Your task to perform on an android device: Open the web browser Image 0: 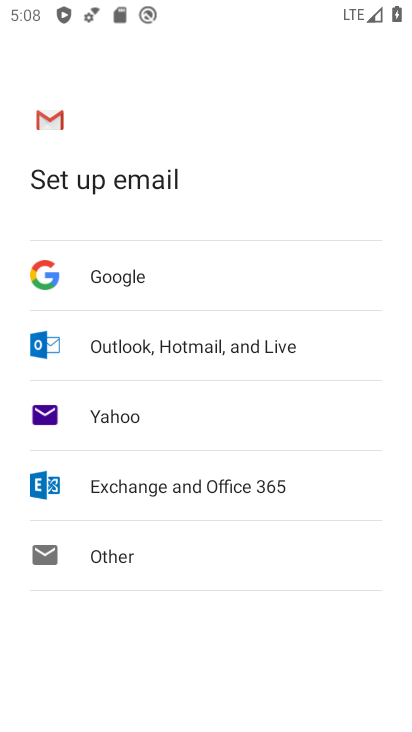
Step 0: press home button
Your task to perform on an android device: Open the web browser Image 1: 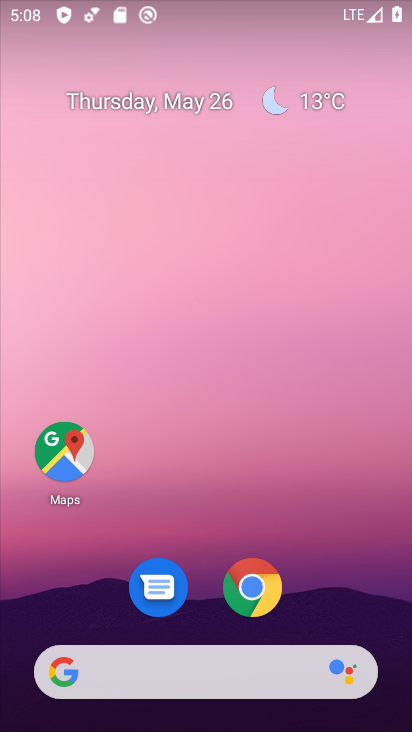
Step 1: click (253, 589)
Your task to perform on an android device: Open the web browser Image 2: 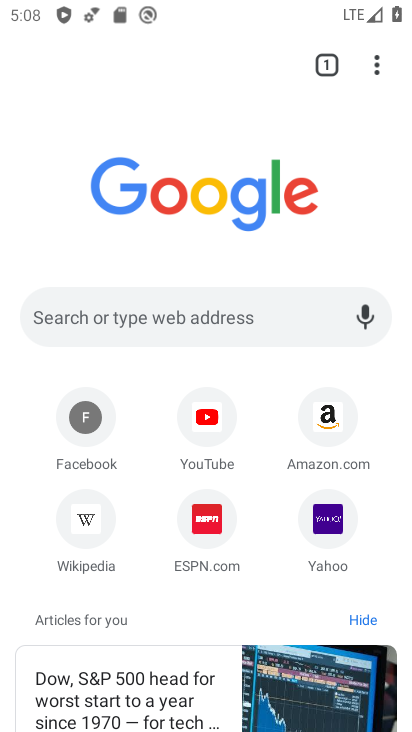
Step 2: task complete